Your task to perform on an android device: change timer sound Image 0: 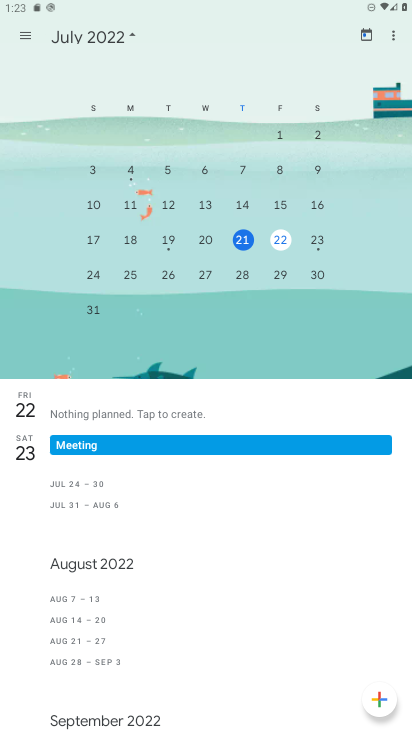
Step 0: press home button
Your task to perform on an android device: change timer sound Image 1: 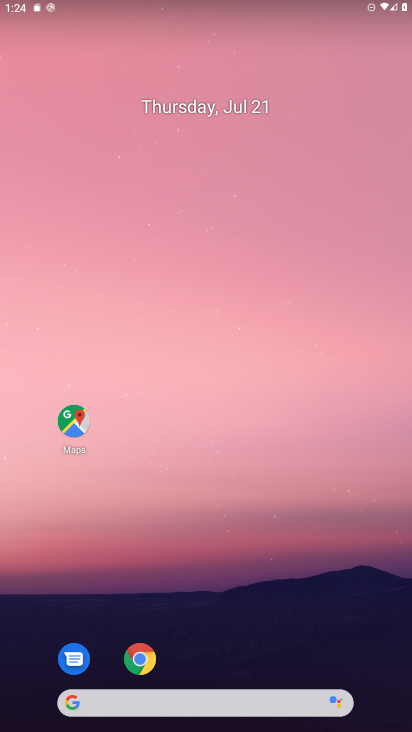
Step 1: drag from (102, 472) to (311, 87)
Your task to perform on an android device: change timer sound Image 2: 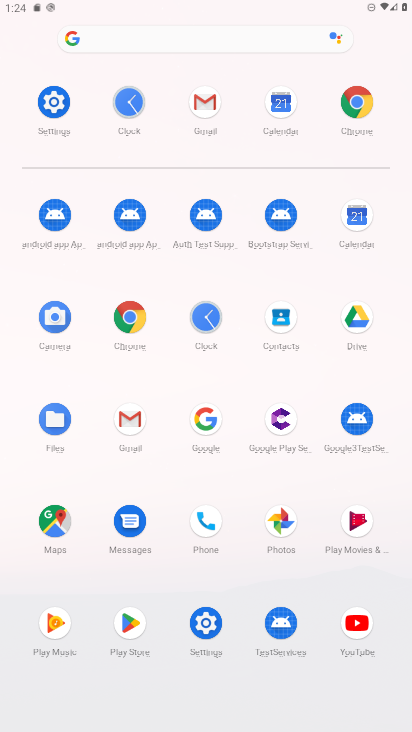
Step 2: click (125, 107)
Your task to perform on an android device: change timer sound Image 3: 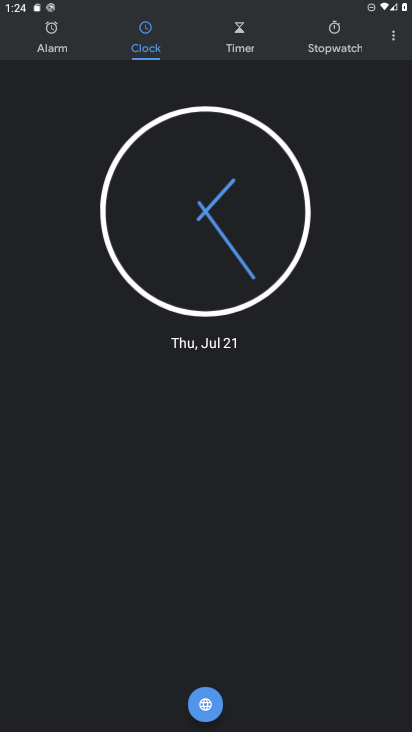
Step 3: click (392, 39)
Your task to perform on an android device: change timer sound Image 4: 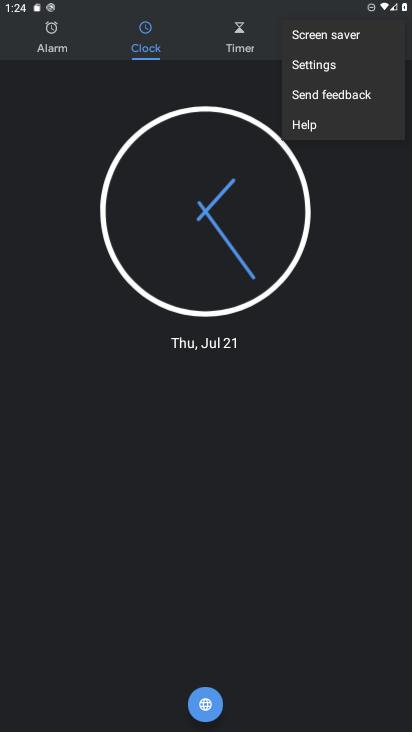
Step 4: click (314, 63)
Your task to perform on an android device: change timer sound Image 5: 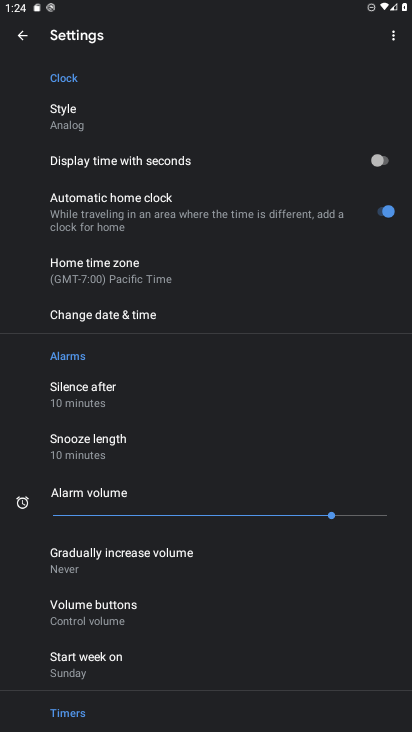
Step 5: drag from (20, 600) to (179, 252)
Your task to perform on an android device: change timer sound Image 6: 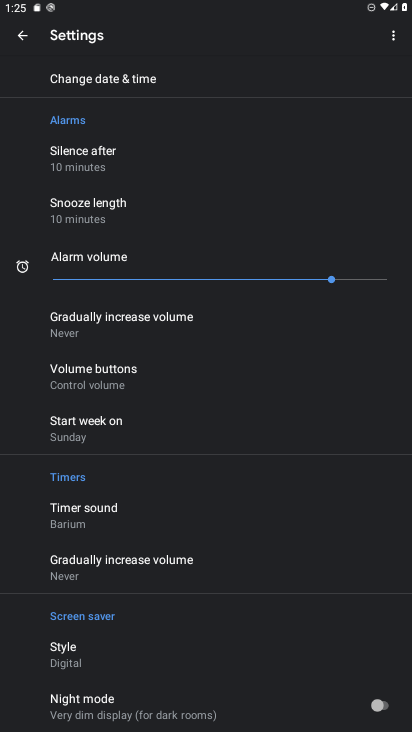
Step 6: click (101, 530)
Your task to perform on an android device: change timer sound Image 7: 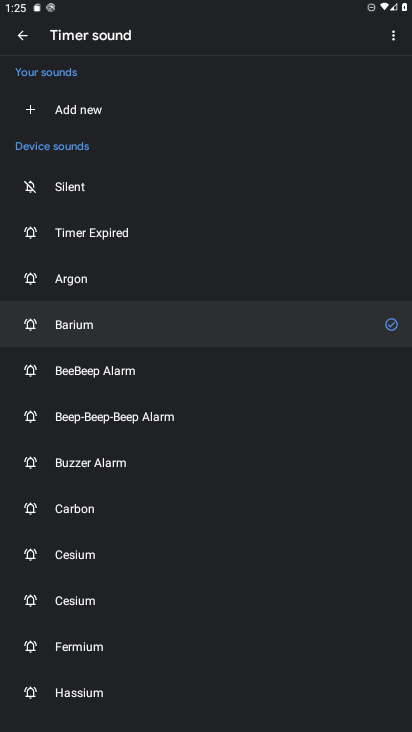
Step 7: click (57, 274)
Your task to perform on an android device: change timer sound Image 8: 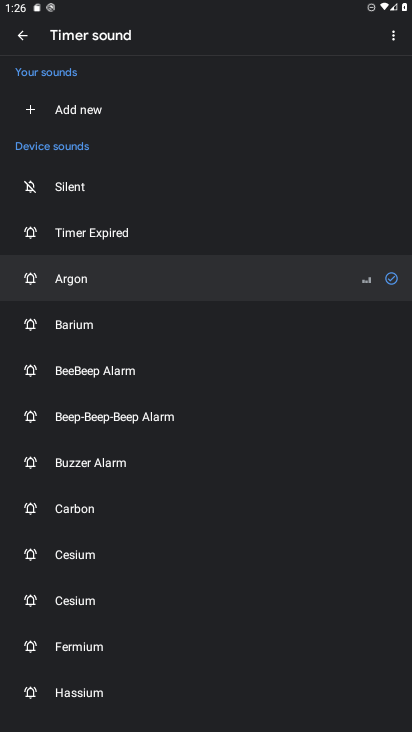
Step 8: press home button
Your task to perform on an android device: change timer sound Image 9: 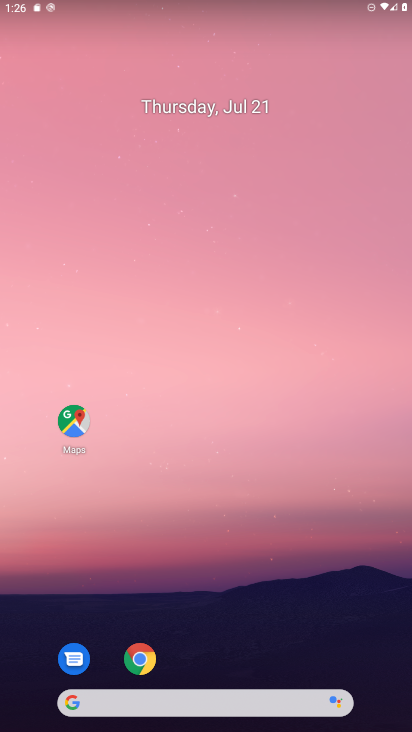
Step 9: drag from (18, 586) to (297, 73)
Your task to perform on an android device: change timer sound Image 10: 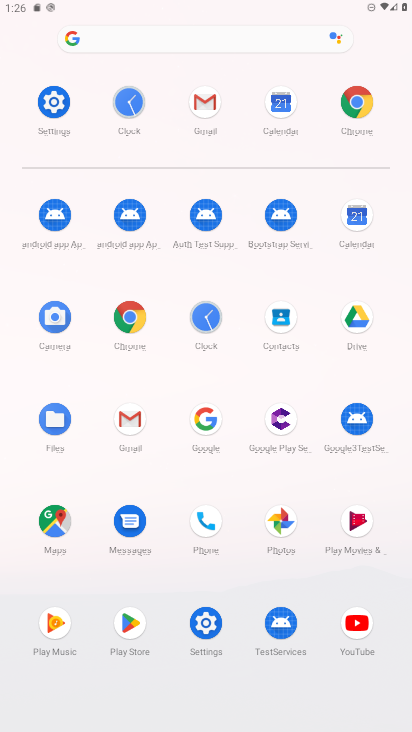
Step 10: click (136, 110)
Your task to perform on an android device: change timer sound Image 11: 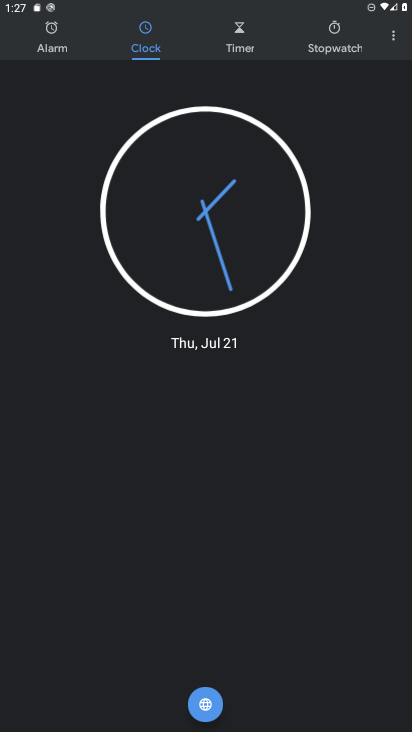
Step 11: click (394, 35)
Your task to perform on an android device: change timer sound Image 12: 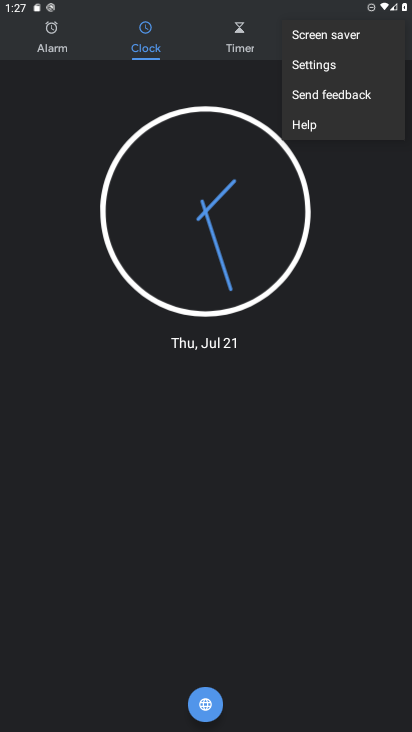
Step 12: click (341, 73)
Your task to perform on an android device: change timer sound Image 13: 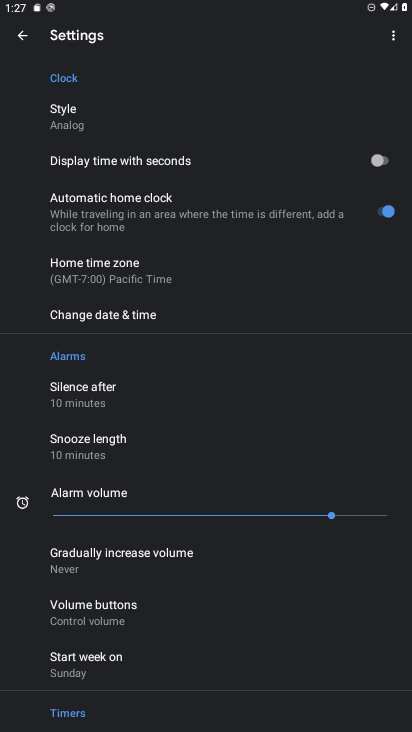
Step 13: drag from (52, 677) to (190, 145)
Your task to perform on an android device: change timer sound Image 14: 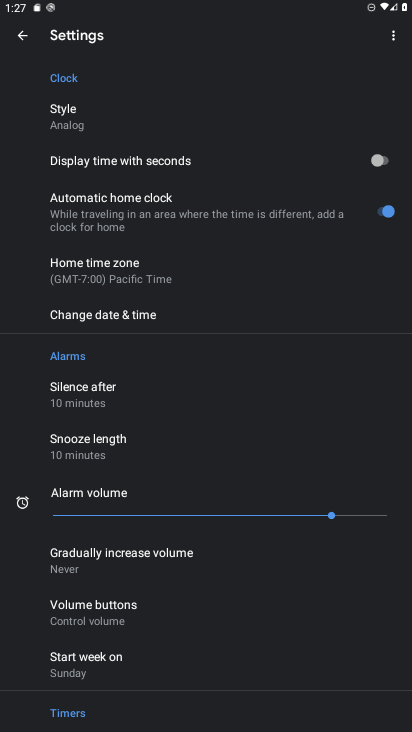
Step 14: drag from (42, 426) to (156, 145)
Your task to perform on an android device: change timer sound Image 15: 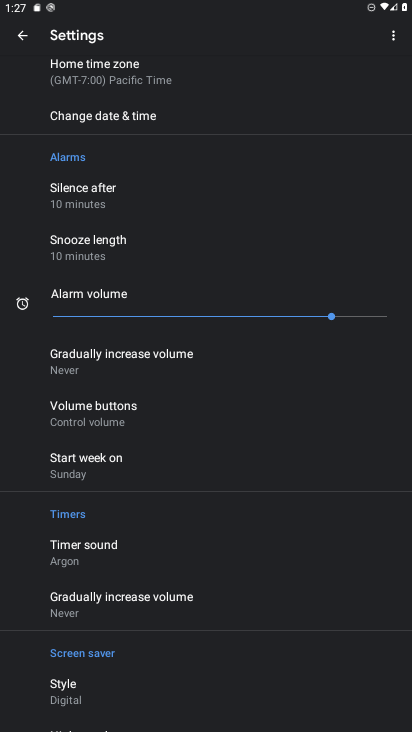
Step 15: click (75, 551)
Your task to perform on an android device: change timer sound Image 16: 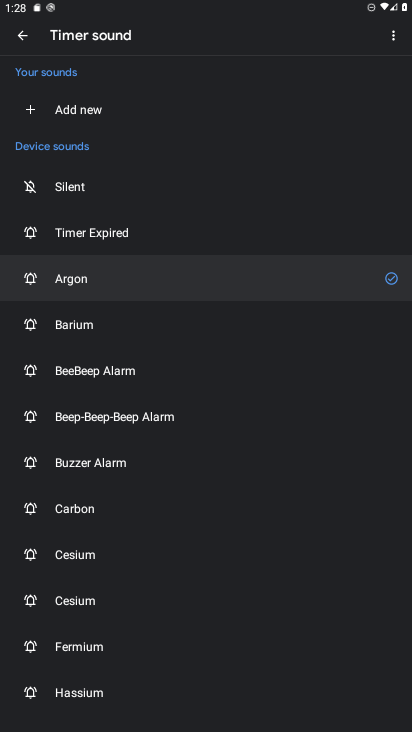
Step 16: click (30, 229)
Your task to perform on an android device: change timer sound Image 17: 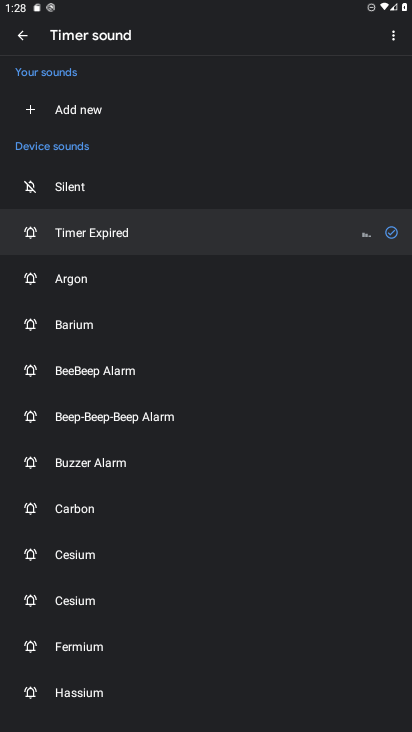
Step 17: task complete